Your task to perform on an android device: Open the phone app and click the voicemail tab. Image 0: 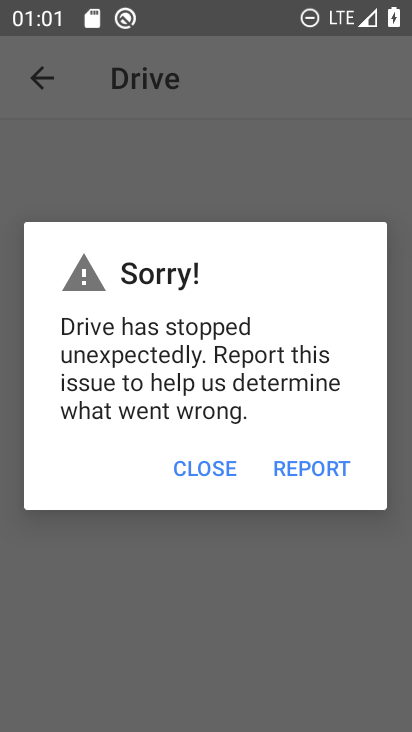
Step 0: press home button
Your task to perform on an android device: Open the phone app and click the voicemail tab. Image 1: 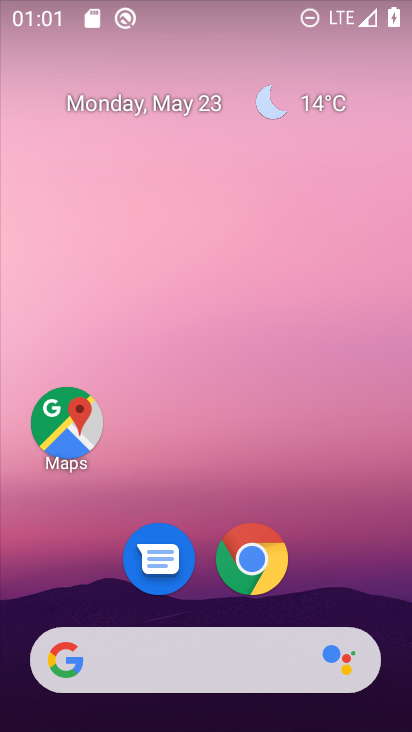
Step 1: drag from (330, 611) to (395, 557)
Your task to perform on an android device: Open the phone app and click the voicemail tab. Image 2: 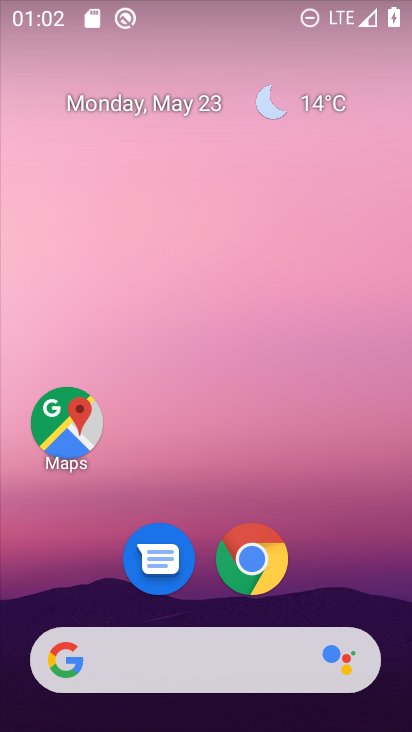
Step 2: drag from (355, 620) to (357, 19)
Your task to perform on an android device: Open the phone app and click the voicemail tab. Image 3: 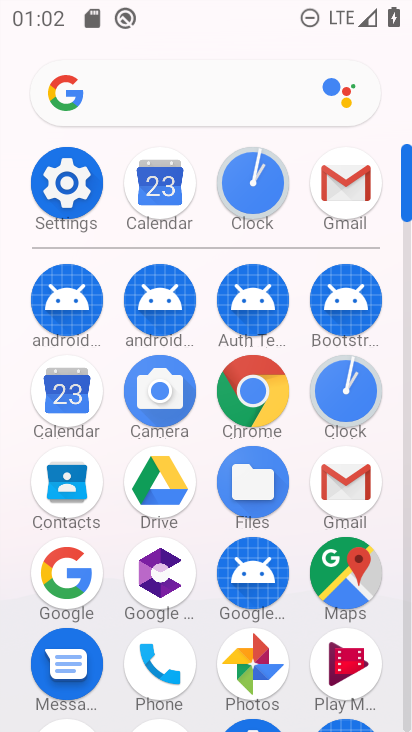
Step 3: click (165, 668)
Your task to perform on an android device: Open the phone app and click the voicemail tab. Image 4: 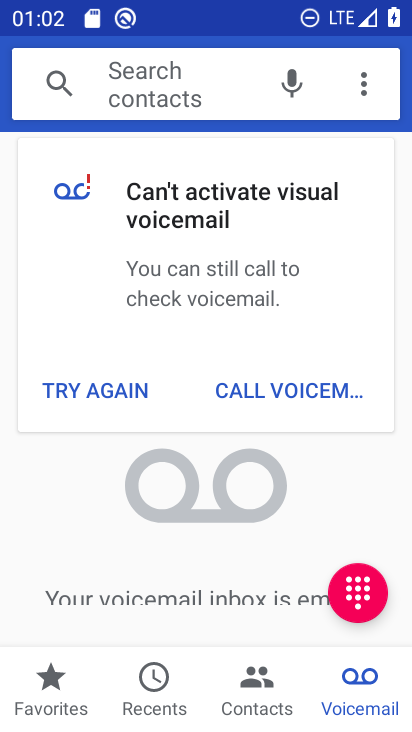
Step 4: click (364, 706)
Your task to perform on an android device: Open the phone app and click the voicemail tab. Image 5: 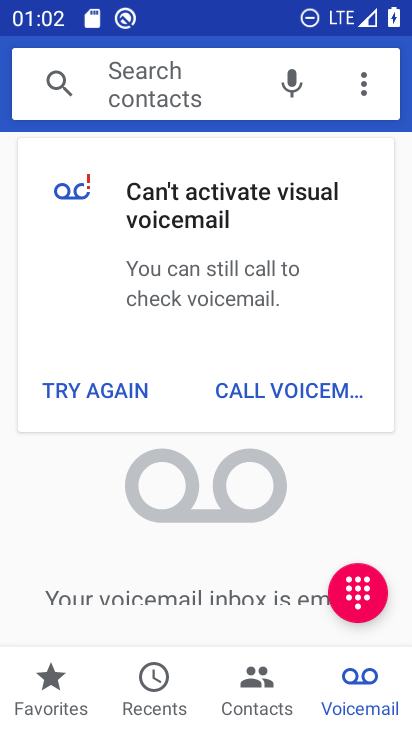
Step 5: task complete